Your task to perform on an android device: check the backup settings in the google photos Image 0: 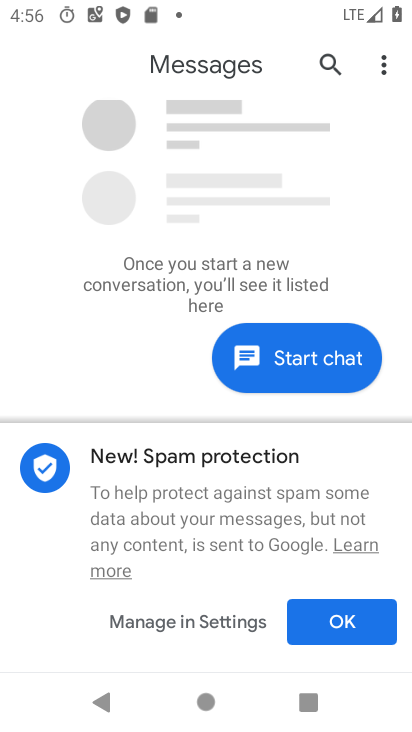
Step 0: press home button
Your task to perform on an android device: check the backup settings in the google photos Image 1: 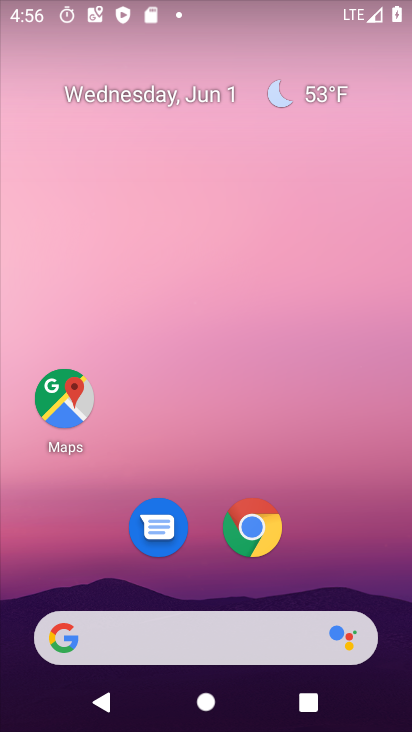
Step 1: drag from (319, 520) to (352, 62)
Your task to perform on an android device: check the backup settings in the google photos Image 2: 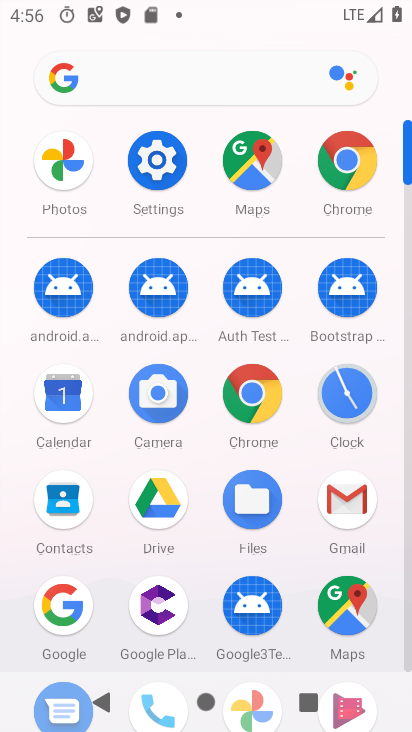
Step 2: click (47, 163)
Your task to perform on an android device: check the backup settings in the google photos Image 3: 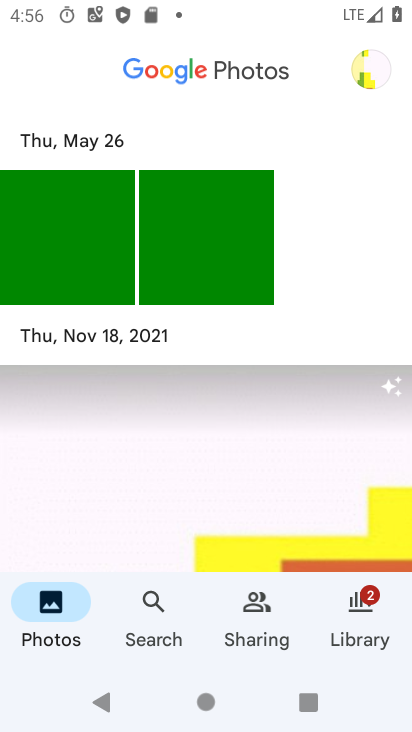
Step 3: click (369, 64)
Your task to perform on an android device: check the backup settings in the google photos Image 4: 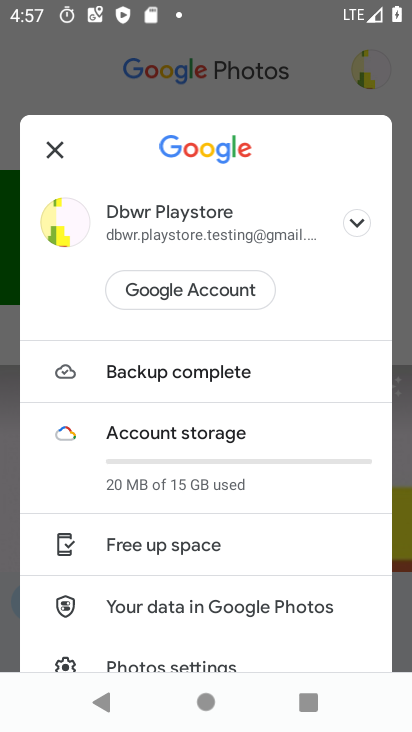
Step 4: drag from (261, 556) to (323, 202)
Your task to perform on an android device: check the backup settings in the google photos Image 5: 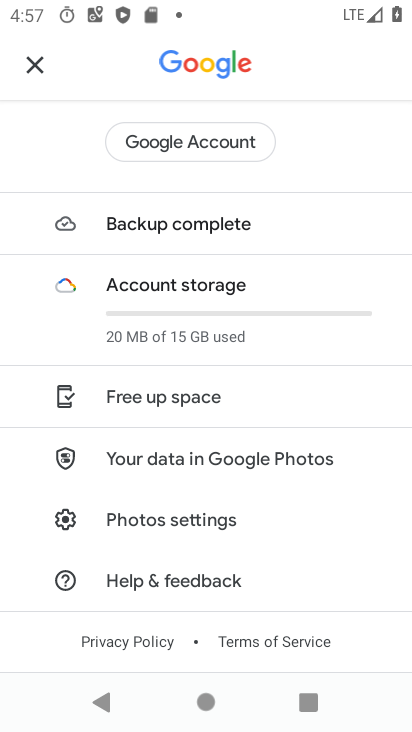
Step 5: click (164, 517)
Your task to perform on an android device: check the backup settings in the google photos Image 6: 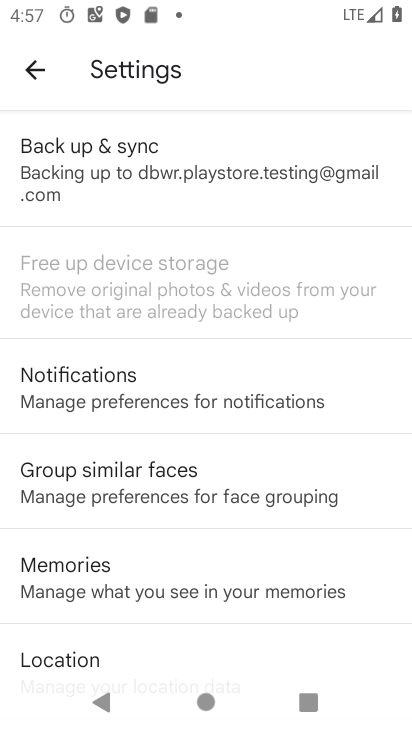
Step 6: click (85, 153)
Your task to perform on an android device: check the backup settings in the google photos Image 7: 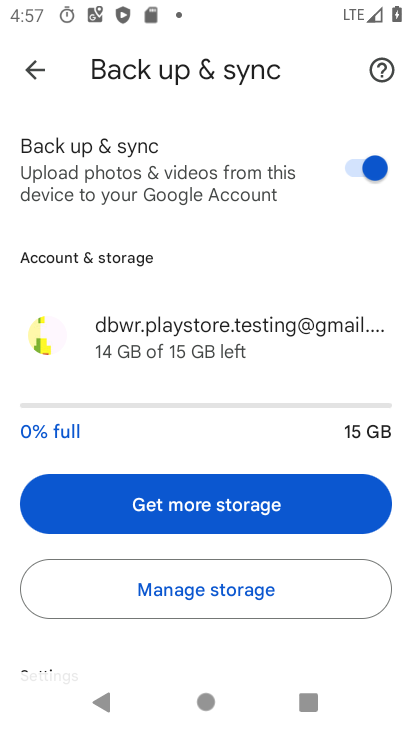
Step 7: task complete